Your task to perform on an android device: Open Reddit.com Image 0: 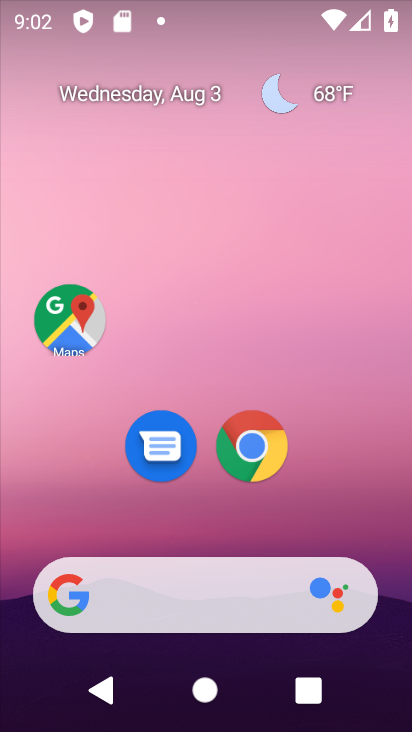
Step 0: click (331, 297)
Your task to perform on an android device: Open Reddit.com Image 1: 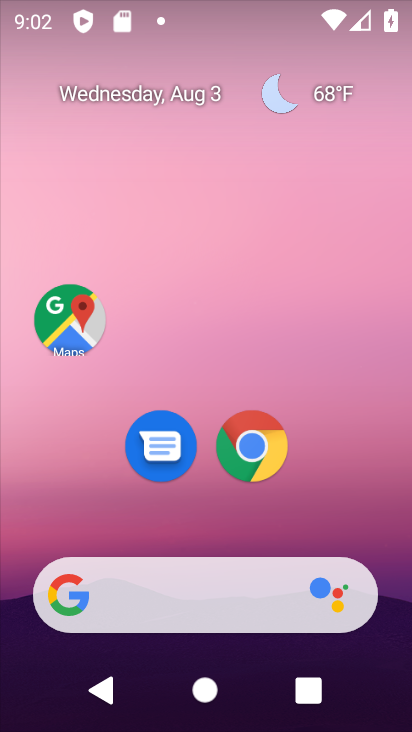
Step 1: click (254, 440)
Your task to perform on an android device: Open Reddit.com Image 2: 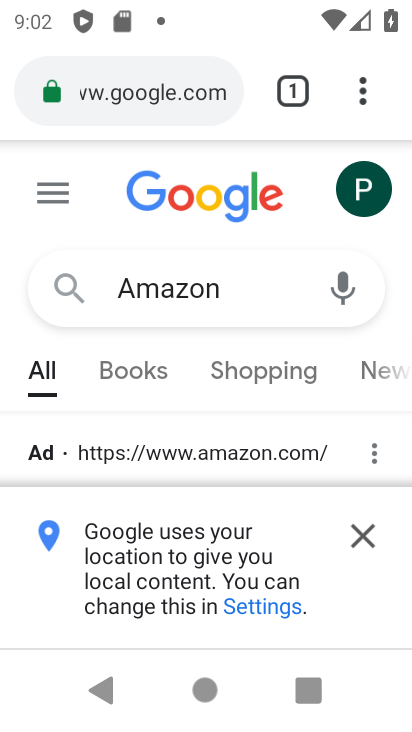
Step 2: click (216, 95)
Your task to perform on an android device: Open Reddit.com Image 3: 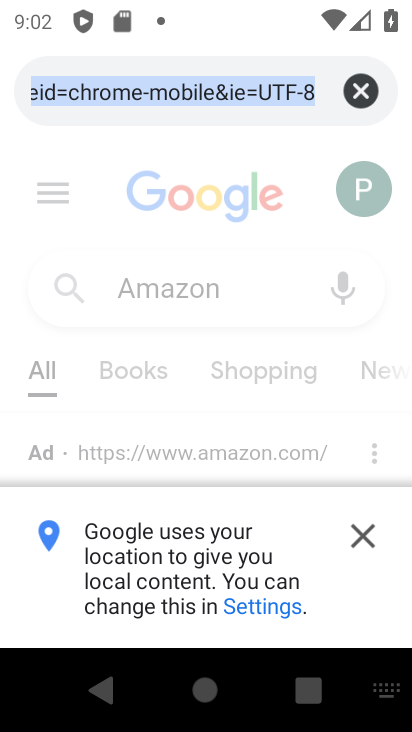
Step 3: click (361, 95)
Your task to perform on an android device: Open Reddit.com Image 4: 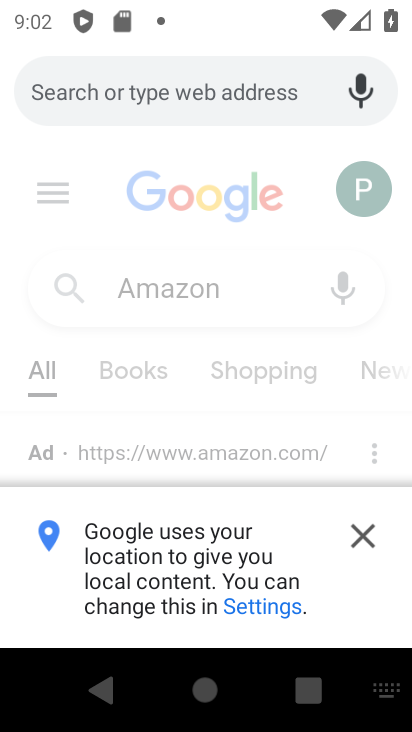
Step 4: type "Reddit.com"
Your task to perform on an android device: Open Reddit.com Image 5: 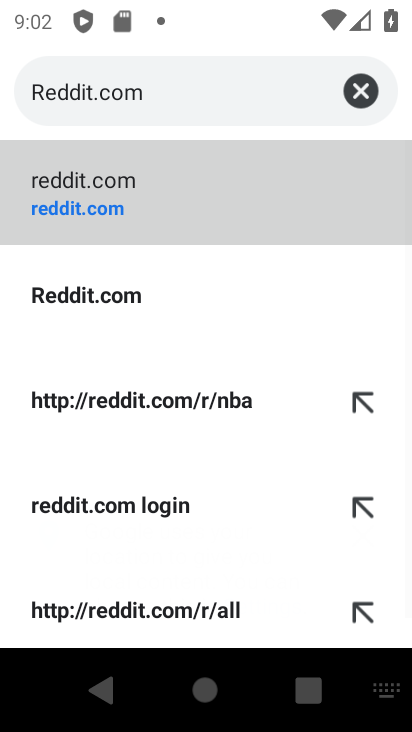
Step 5: click (116, 208)
Your task to perform on an android device: Open Reddit.com Image 6: 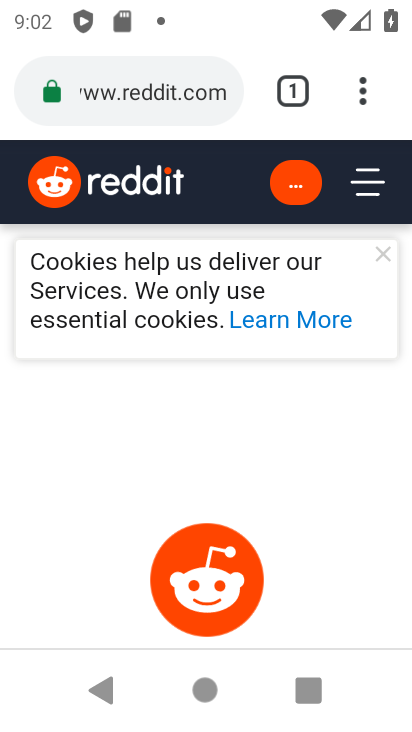
Step 6: task complete